Your task to perform on an android device: Do I have any events tomorrow? Image 0: 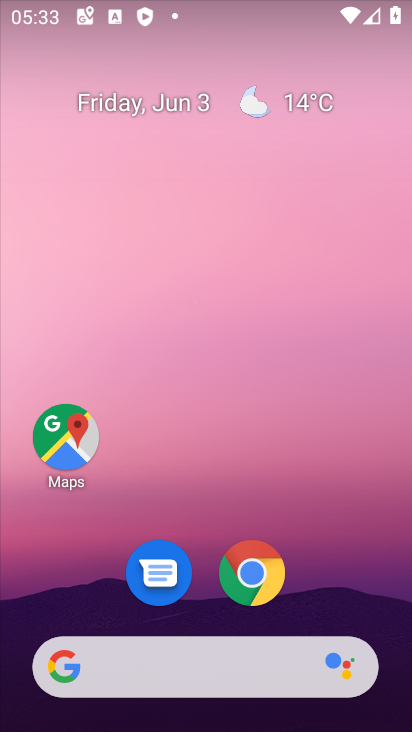
Step 0: drag from (270, 714) to (214, 12)
Your task to perform on an android device: Do I have any events tomorrow? Image 1: 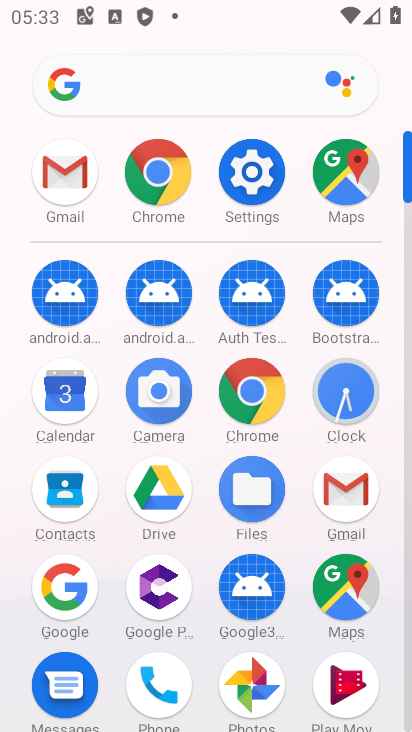
Step 1: click (67, 428)
Your task to perform on an android device: Do I have any events tomorrow? Image 2: 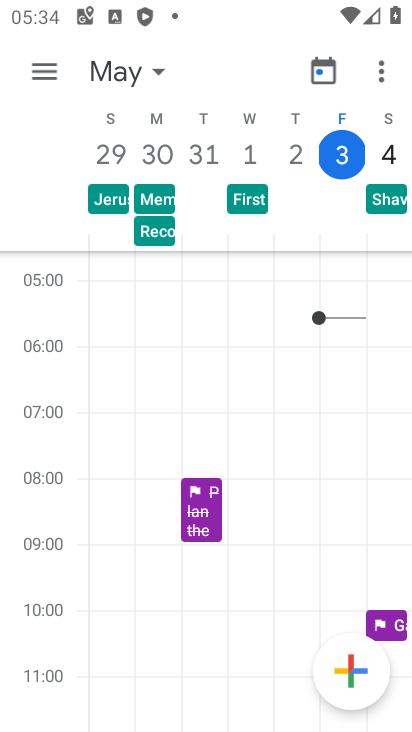
Step 2: click (151, 75)
Your task to perform on an android device: Do I have any events tomorrow? Image 3: 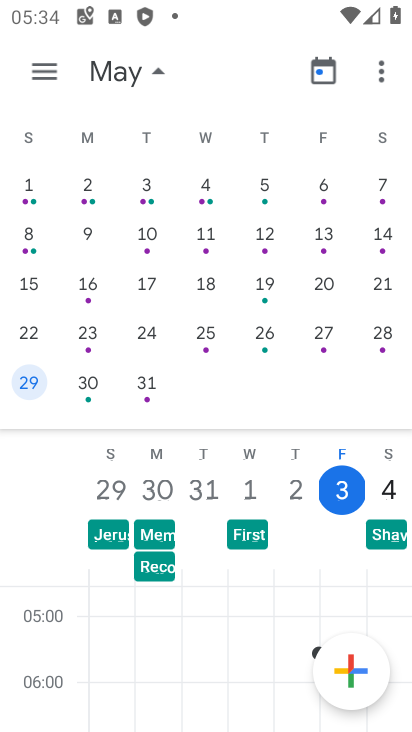
Step 3: drag from (382, 279) to (104, 258)
Your task to perform on an android device: Do I have any events tomorrow? Image 4: 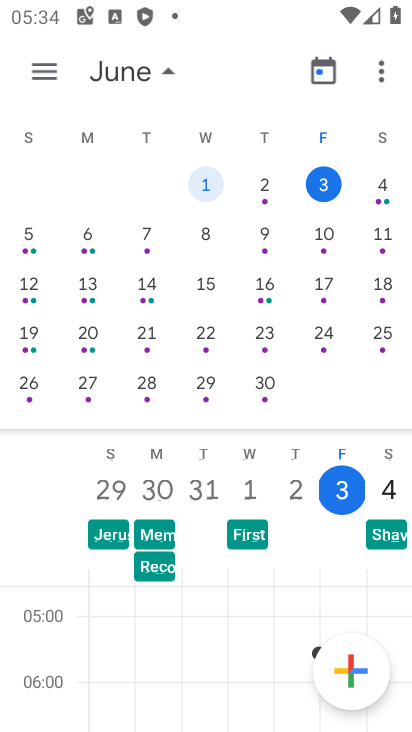
Step 4: click (388, 181)
Your task to perform on an android device: Do I have any events tomorrow? Image 5: 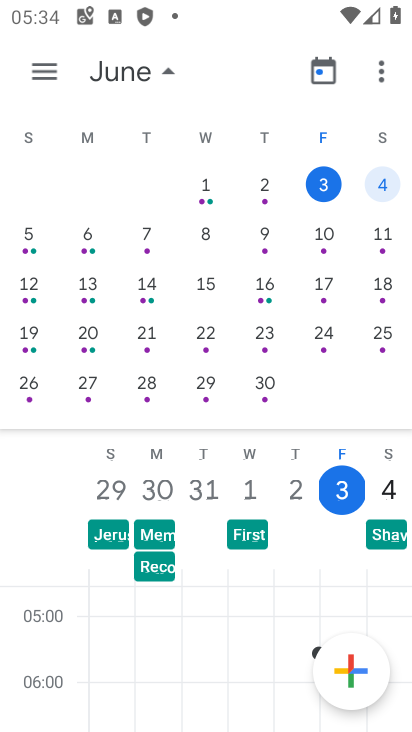
Step 5: task complete